Your task to perform on an android device: turn off translation in the chrome app Image 0: 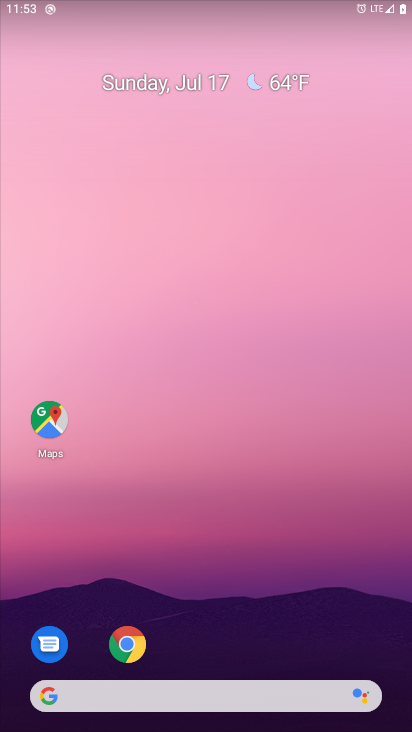
Step 0: press home button
Your task to perform on an android device: turn off translation in the chrome app Image 1: 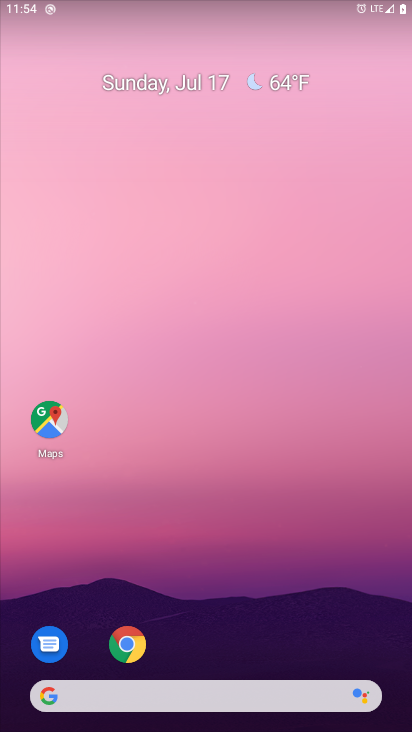
Step 1: click (113, 640)
Your task to perform on an android device: turn off translation in the chrome app Image 2: 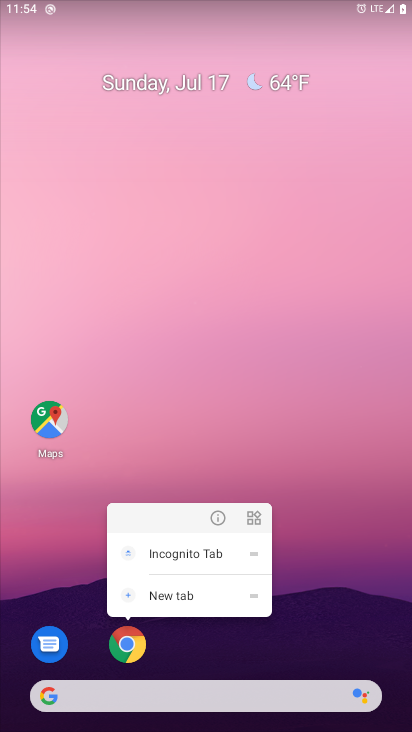
Step 2: click (127, 646)
Your task to perform on an android device: turn off translation in the chrome app Image 3: 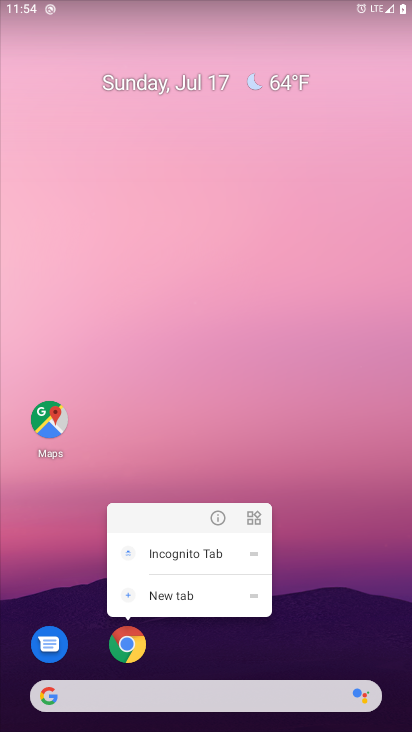
Step 3: click (125, 655)
Your task to perform on an android device: turn off translation in the chrome app Image 4: 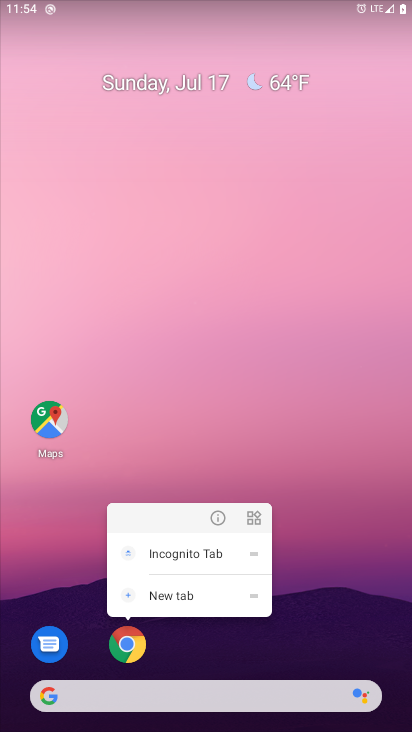
Step 4: click (125, 655)
Your task to perform on an android device: turn off translation in the chrome app Image 5: 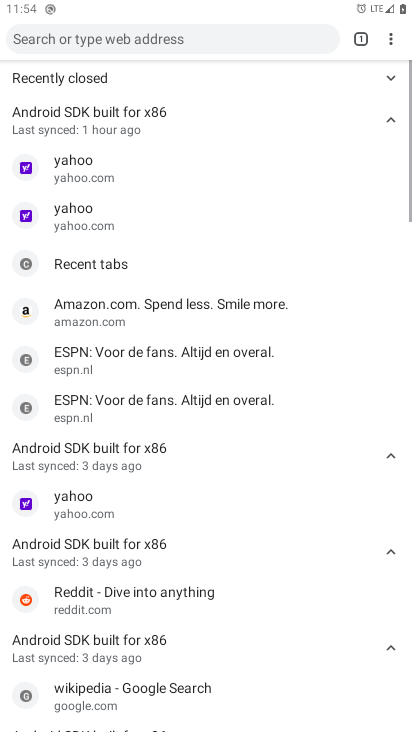
Step 5: drag from (390, 35) to (262, 336)
Your task to perform on an android device: turn off translation in the chrome app Image 6: 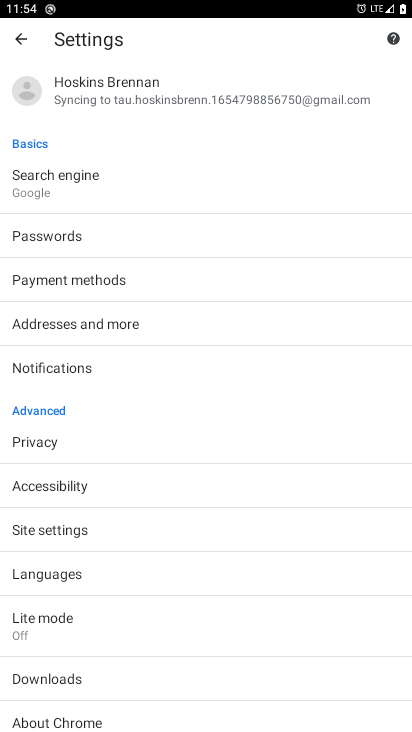
Step 6: drag from (188, 392) to (229, 122)
Your task to perform on an android device: turn off translation in the chrome app Image 7: 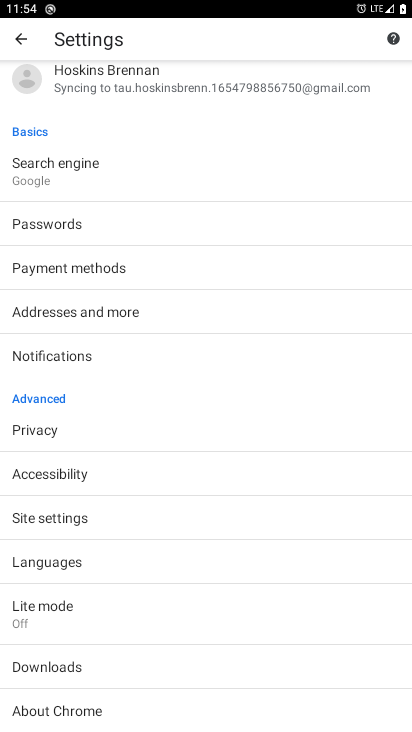
Step 7: click (89, 566)
Your task to perform on an android device: turn off translation in the chrome app Image 8: 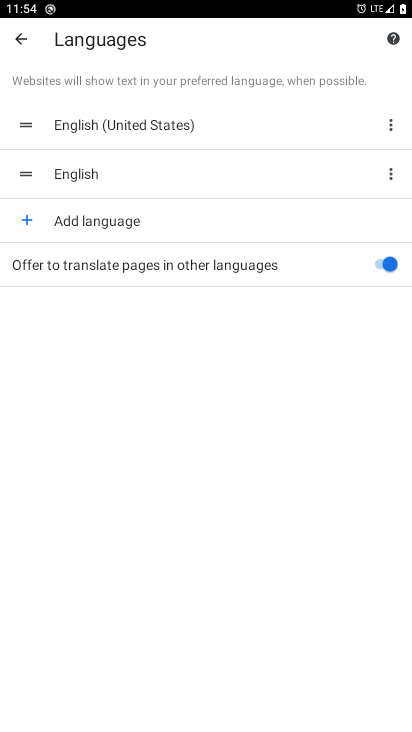
Step 8: click (384, 254)
Your task to perform on an android device: turn off translation in the chrome app Image 9: 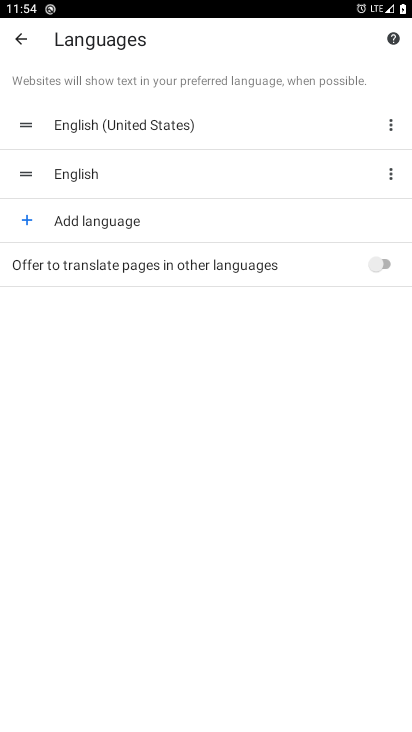
Step 9: task complete